Your task to perform on an android device: toggle notification dots Image 0: 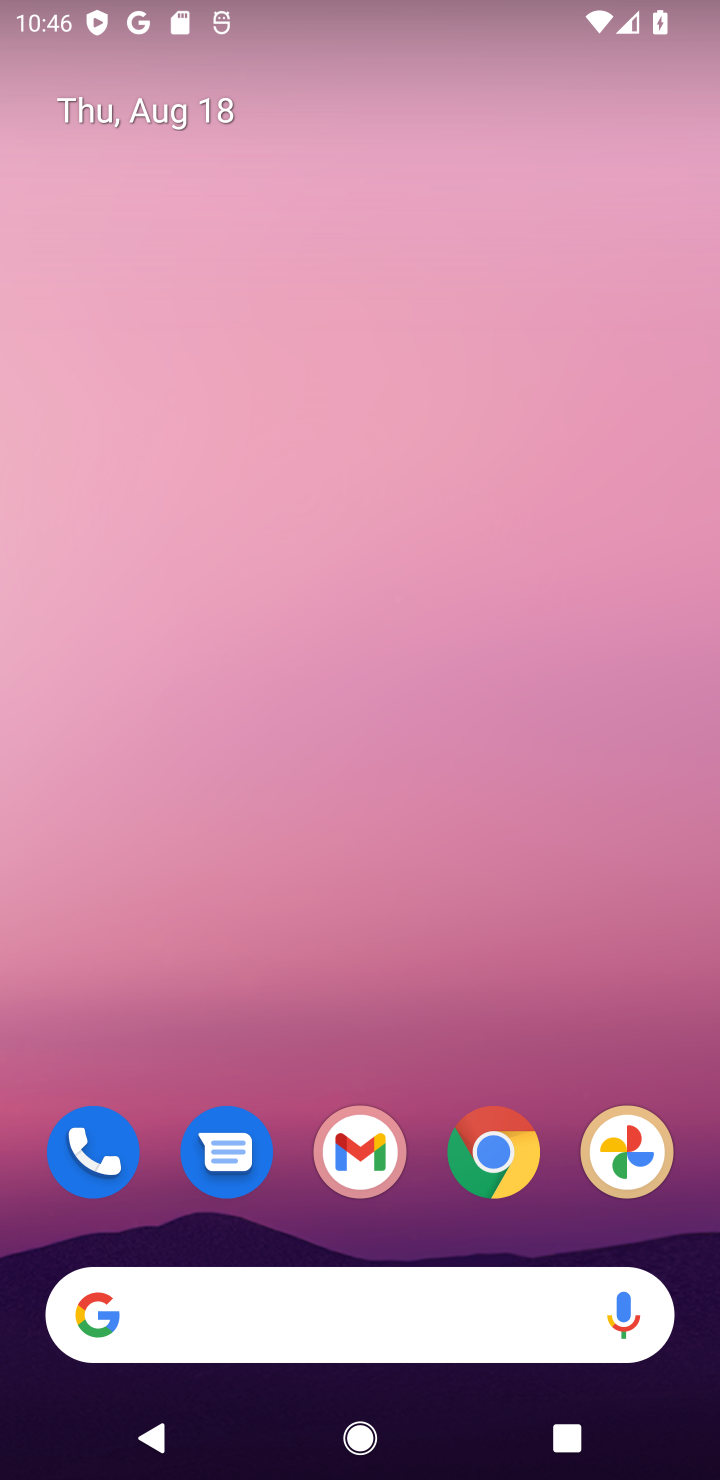
Step 0: drag from (407, 862) to (513, 0)
Your task to perform on an android device: toggle notification dots Image 1: 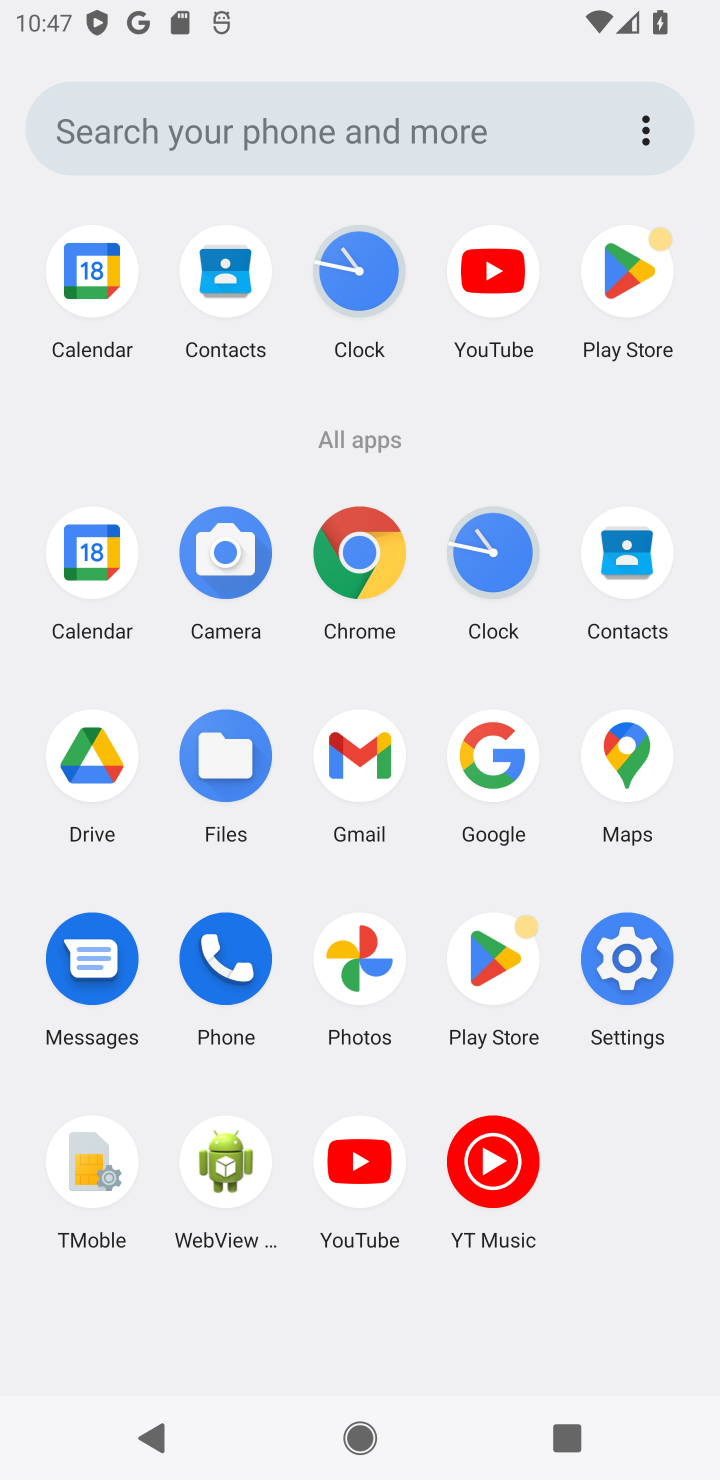
Step 1: click (634, 952)
Your task to perform on an android device: toggle notification dots Image 2: 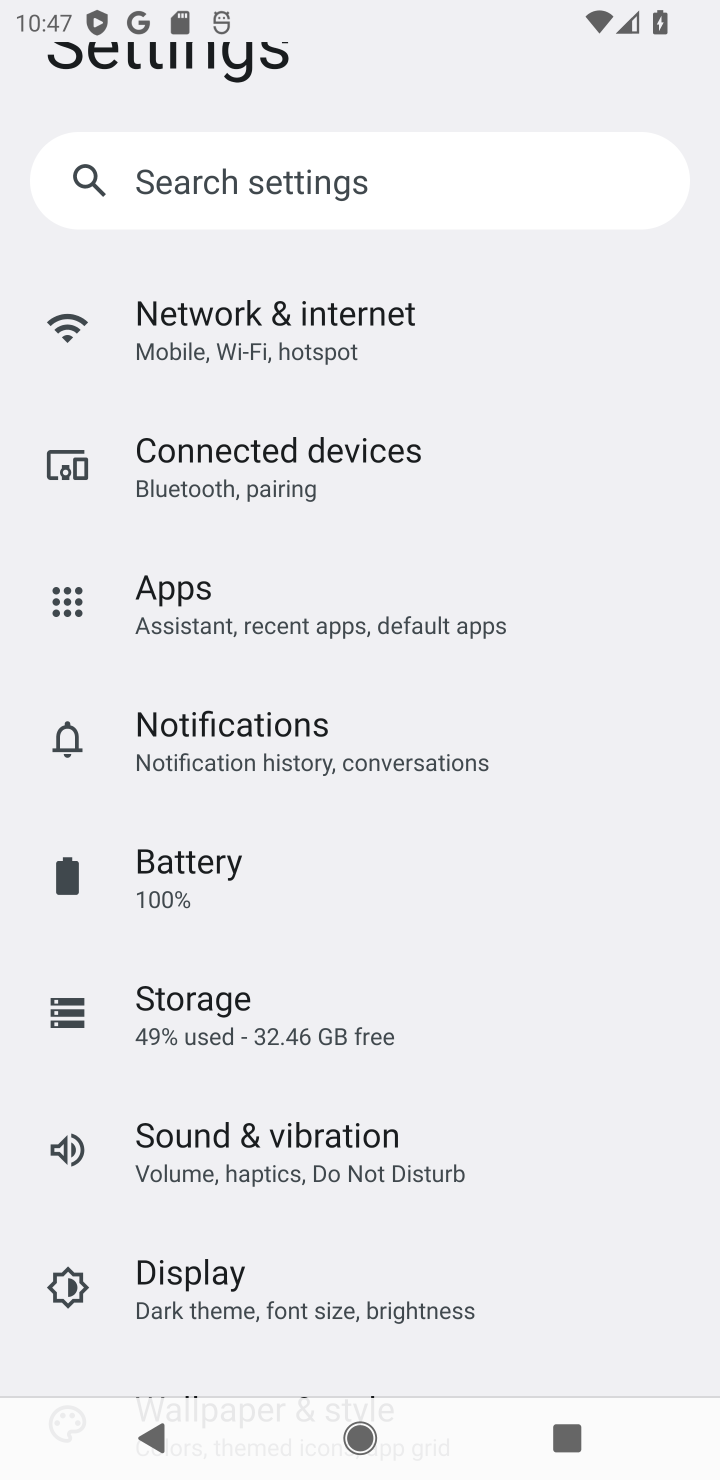
Step 2: click (347, 735)
Your task to perform on an android device: toggle notification dots Image 3: 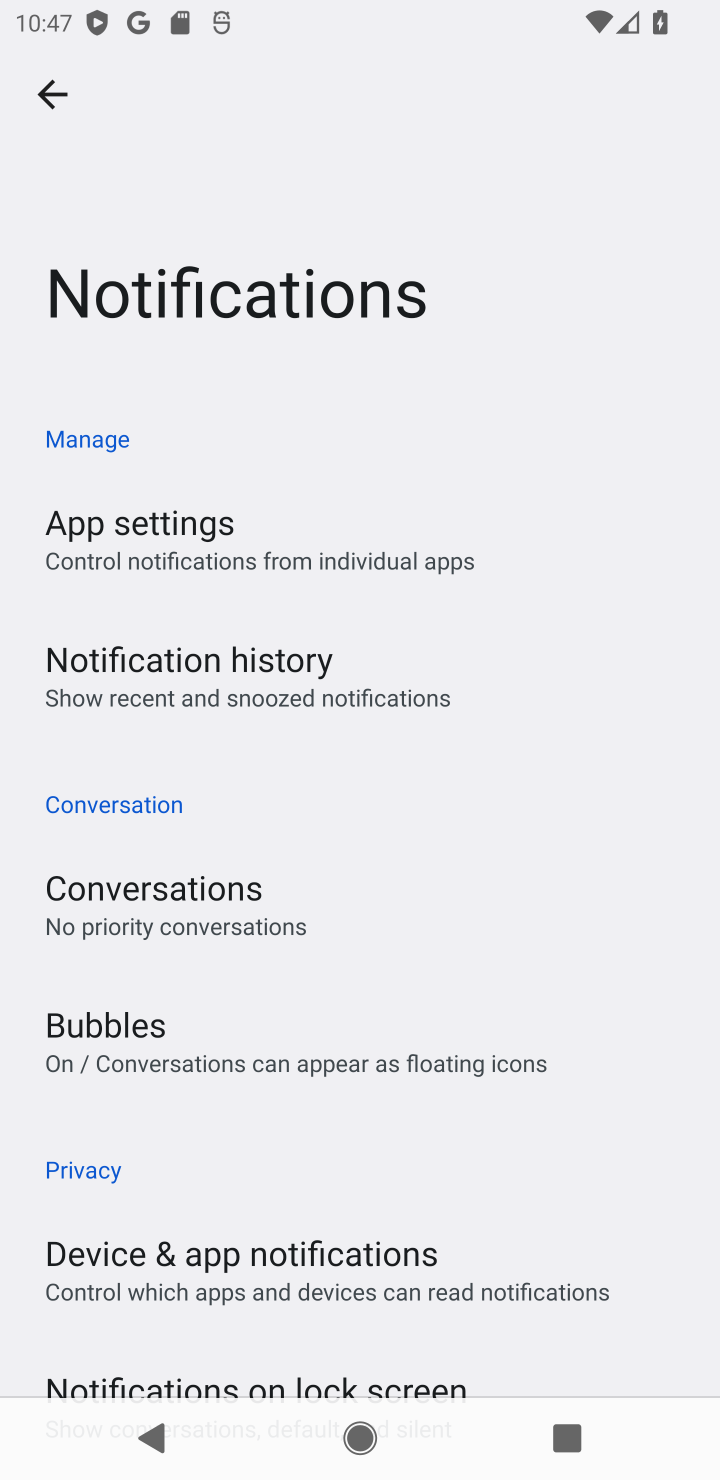
Step 3: drag from (333, 1140) to (416, 142)
Your task to perform on an android device: toggle notification dots Image 4: 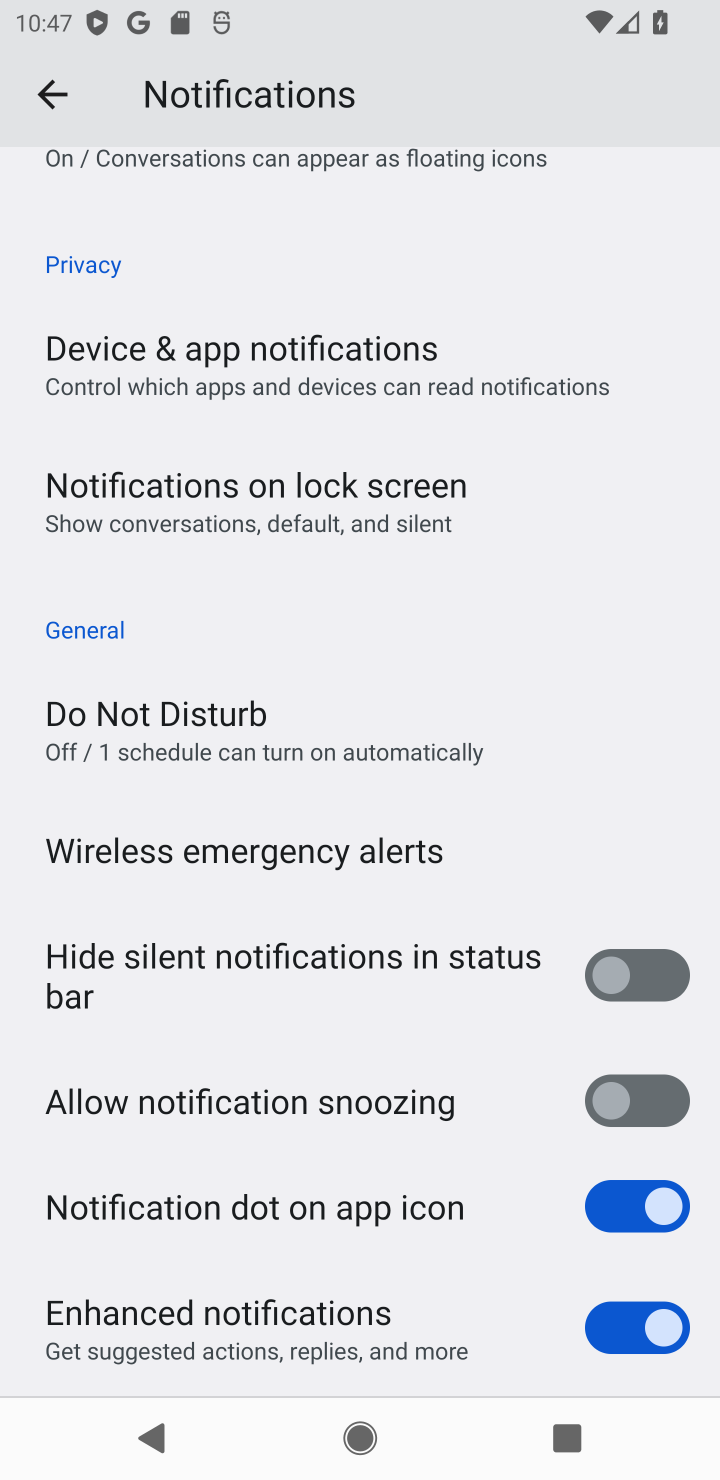
Step 4: click (638, 1198)
Your task to perform on an android device: toggle notification dots Image 5: 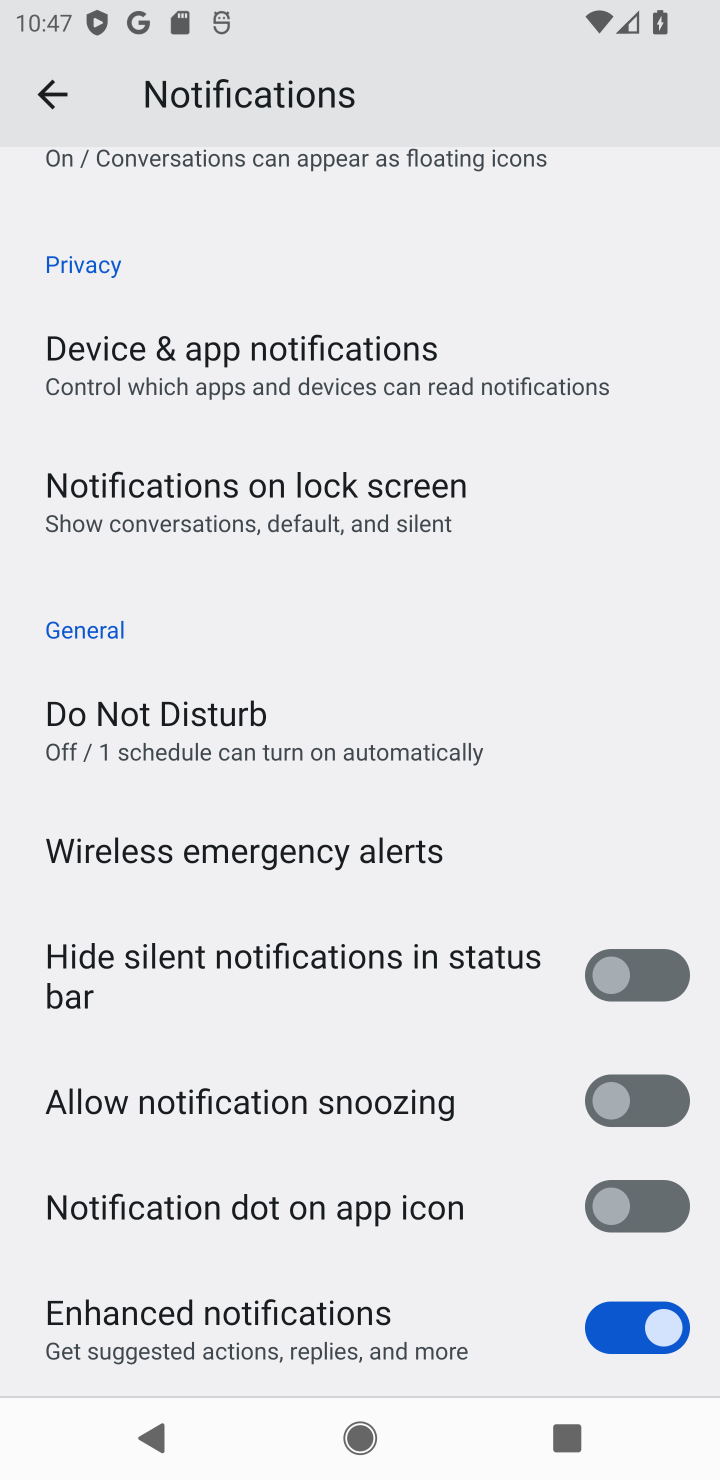
Step 5: task complete